Your task to perform on an android device: turn on the 24-hour format for clock Image 0: 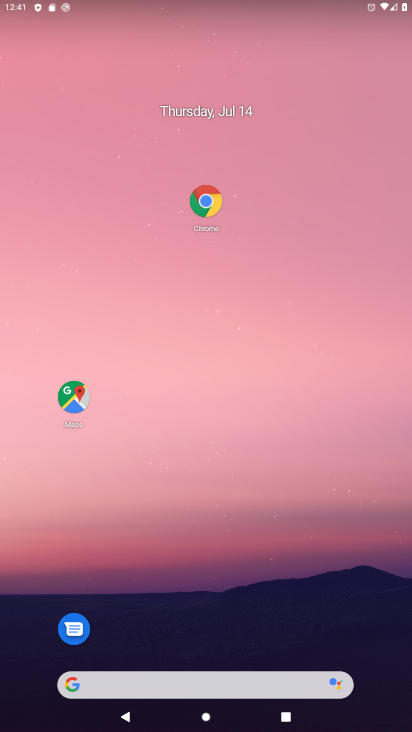
Step 0: drag from (215, 652) to (217, 180)
Your task to perform on an android device: turn on the 24-hour format for clock Image 1: 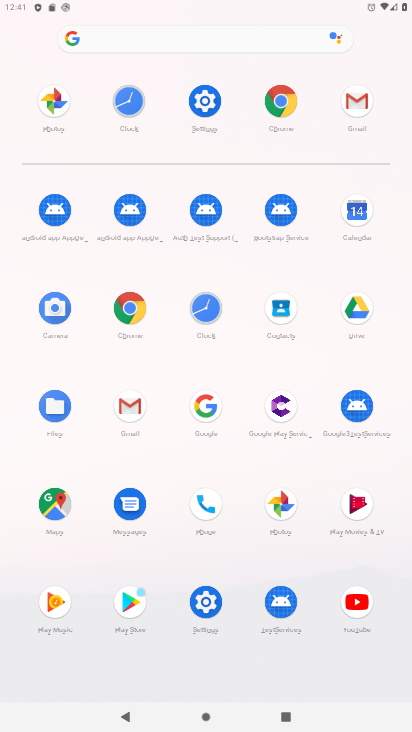
Step 1: click (197, 317)
Your task to perform on an android device: turn on the 24-hour format for clock Image 2: 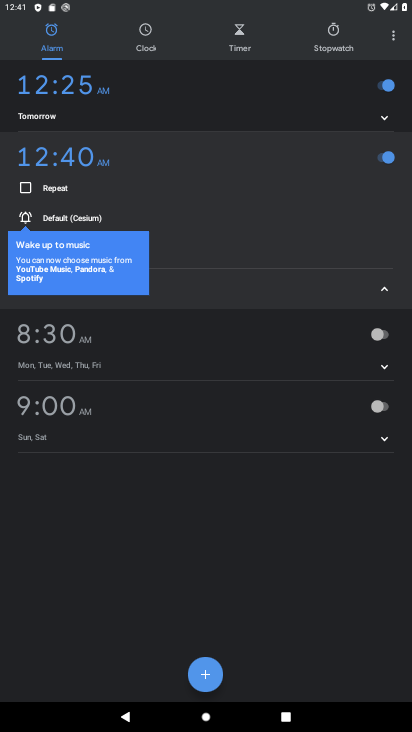
Step 2: click (392, 35)
Your task to perform on an android device: turn on the 24-hour format for clock Image 3: 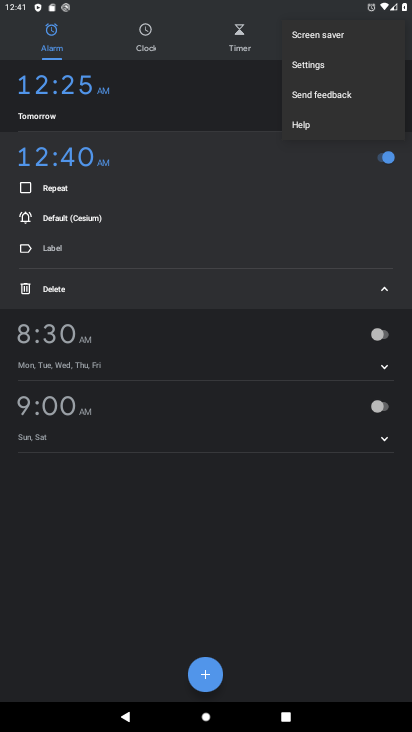
Step 3: click (319, 72)
Your task to perform on an android device: turn on the 24-hour format for clock Image 4: 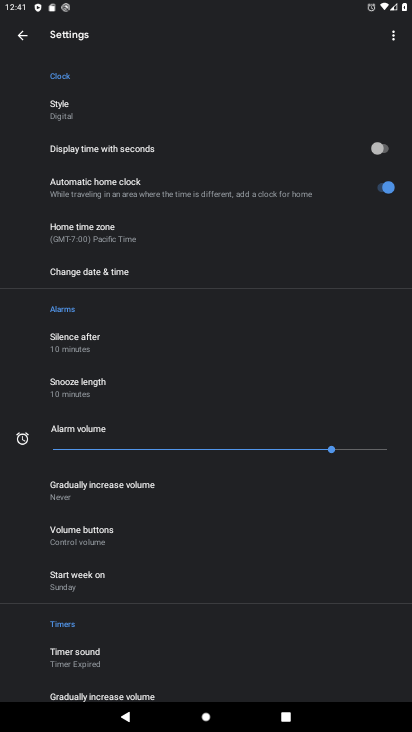
Step 4: click (83, 271)
Your task to perform on an android device: turn on the 24-hour format for clock Image 5: 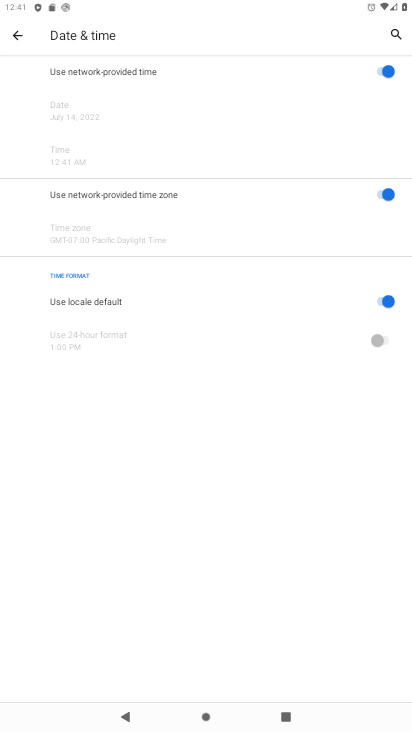
Step 5: click (389, 305)
Your task to perform on an android device: turn on the 24-hour format for clock Image 6: 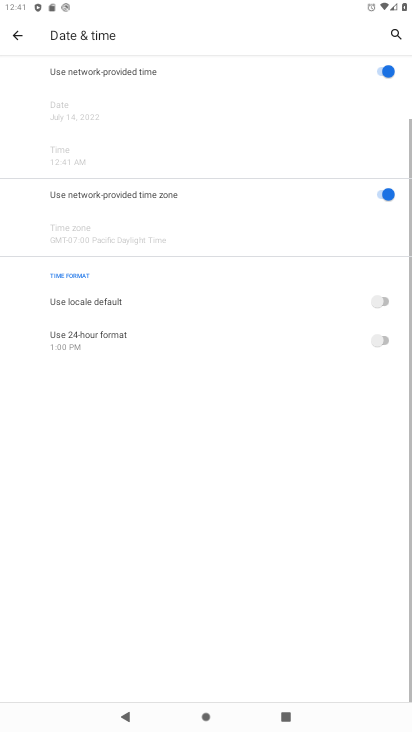
Step 6: click (378, 335)
Your task to perform on an android device: turn on the 24-hour format for clock Image 7: 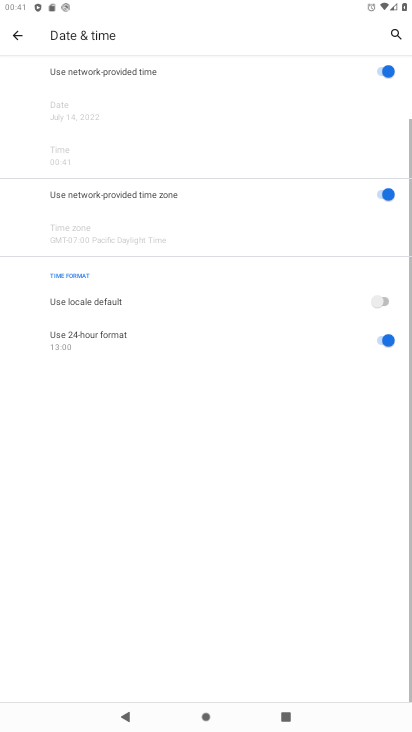
Step 7: task complete